Your task to perform on an android device: Show me productivity apps on the Play Store Image 0: 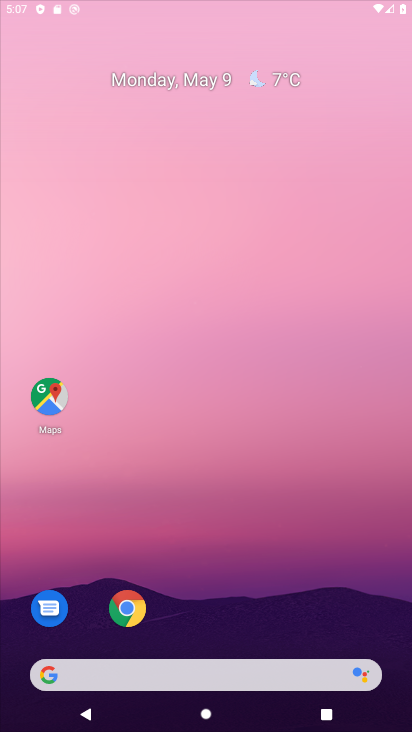
Step 0: drag from (209, 618) to (336, 107)
Your task to perform on an android device: Show me productivity apps on the Play Store Image 1: 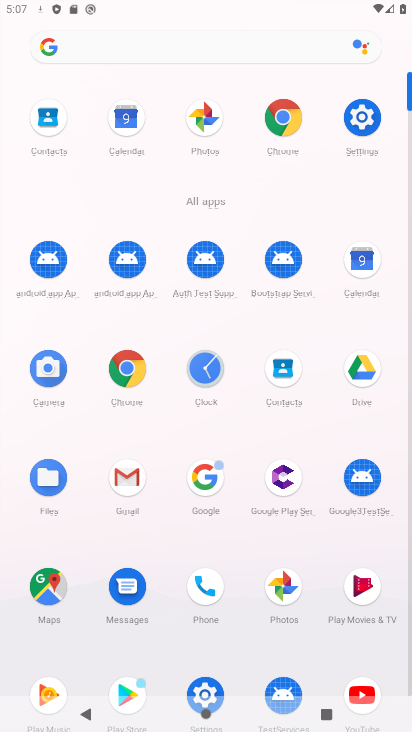
Step 1: click (134, 676)
Your task to perform on an android device: Show me productivity apps on the Play Store Image 2: 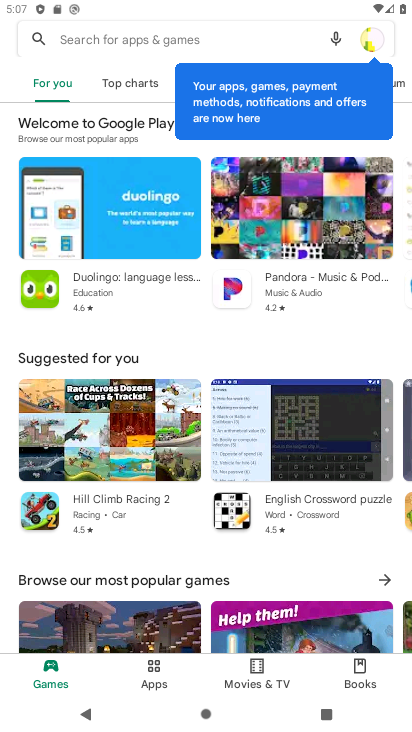
Step 2: click (136, 684)
Your task to perform on an android device: Show me productivity apps on the Play Store Image 3: 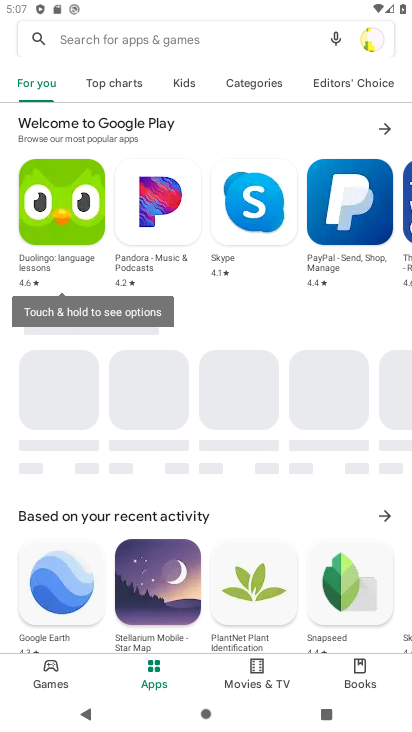
Step 3: click (272, 81)
Your task to perform on an android device: Show me productivity apps on the Play Store Image 4: 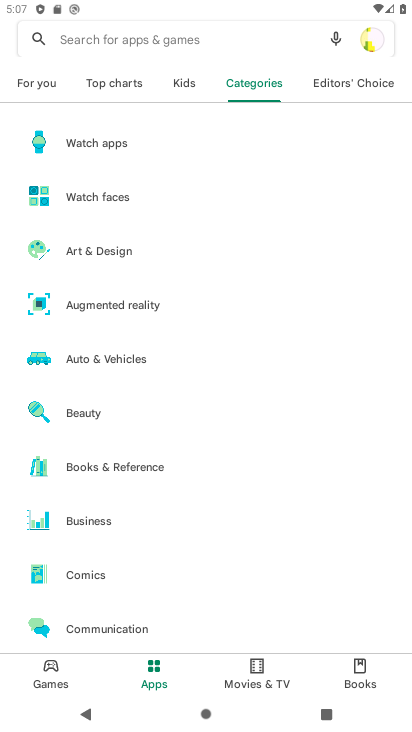
Step 4: drag from (214, 607) to (277, 118)
Your task to perform on an android device: Show me productivity apps on the Play Store Image 5: 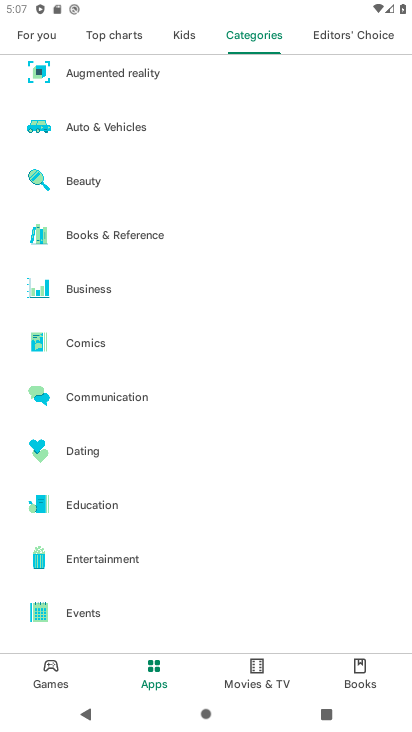
Step 5: drag from (260, 543) to (320, 101)
Your task to perform on an android device: Show me productivity apps on the Play Store Image 6: 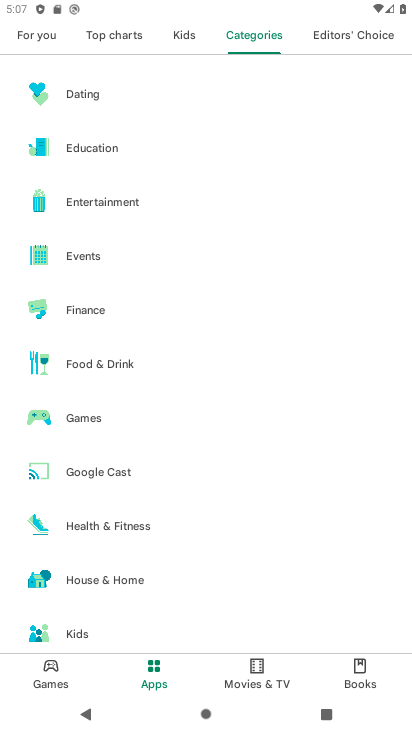
Step 6: drag from (281, 543) to (283, 61)
Your task to perform on an android device: Show me productivity apps on the Play Store Image 7: 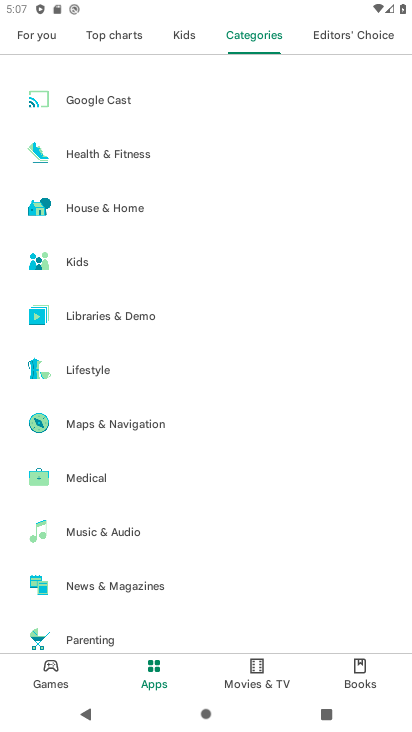
Step 7: drag from (173, 608) to (267, 154)
Your task to perform on an android device: Show me productivity apps on the Play Store Image 8: 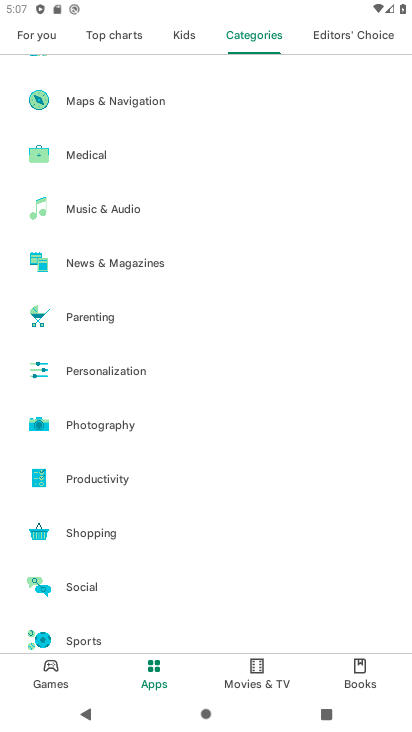
Step 8: click (123, 482)
Your task to perform on an android device: Show me productivity apps on the Play Store Image 9: 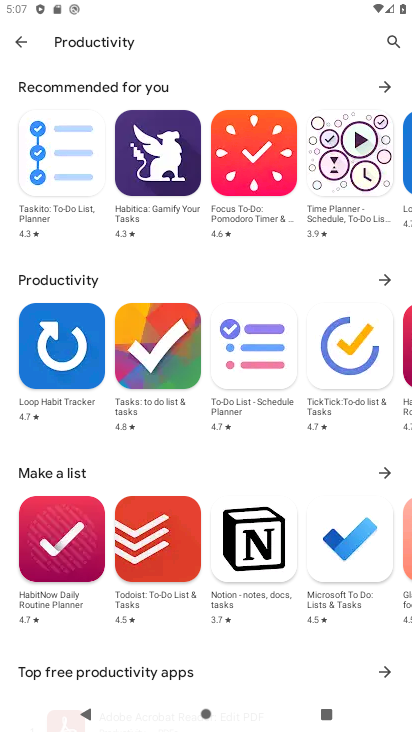
Step 9: task complete